Your task to perform on an android device: Open Yahoo.com Image 0: 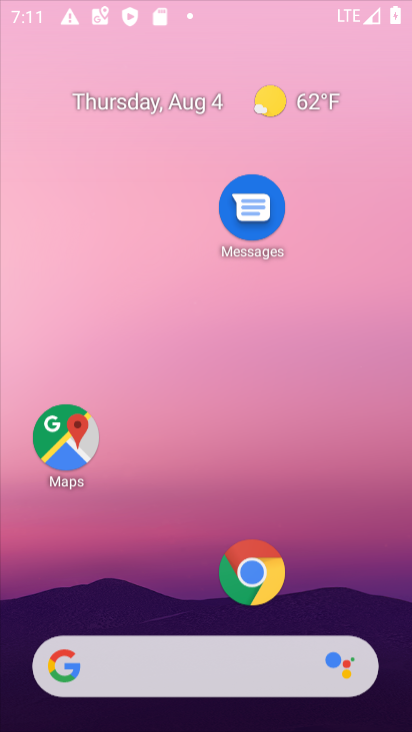
Step 0: press home button
Your task to perform on an android device: Open Yahoo.com Image 1: 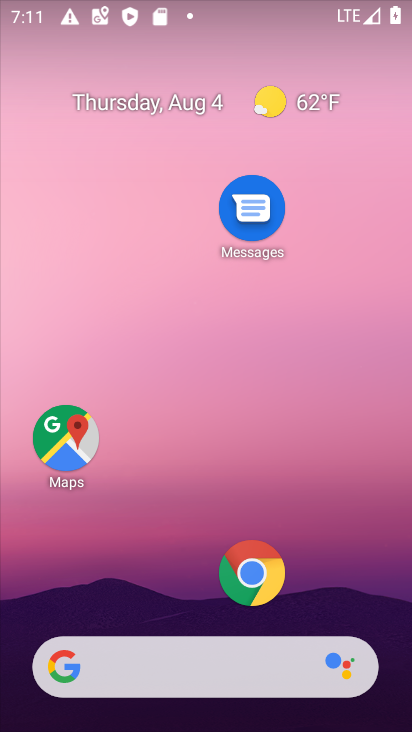
Step 1: click (67, 664)
Your task to perform on an android device: Open Yahoo.com Image 2: 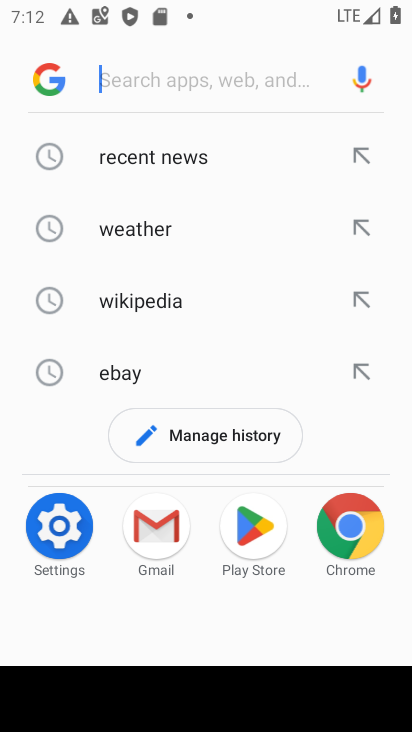
Step 2: type "Yahoo.com"
Your task to perform on an android device: Open Yahoo.com Image 3: 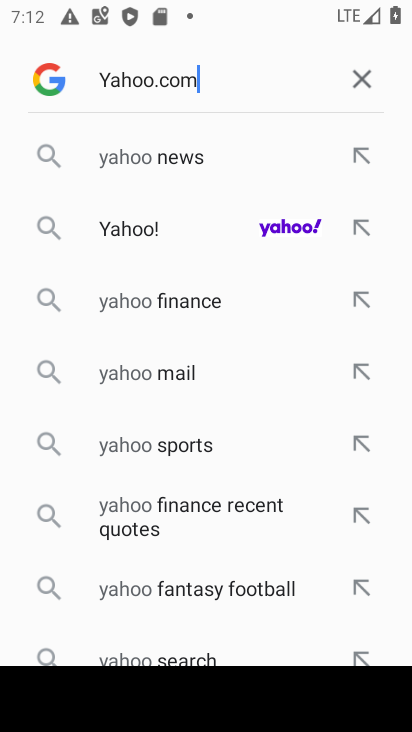
Step 3: press enter
Your task to perform on an android device: Open Yahoo.com Image 4: 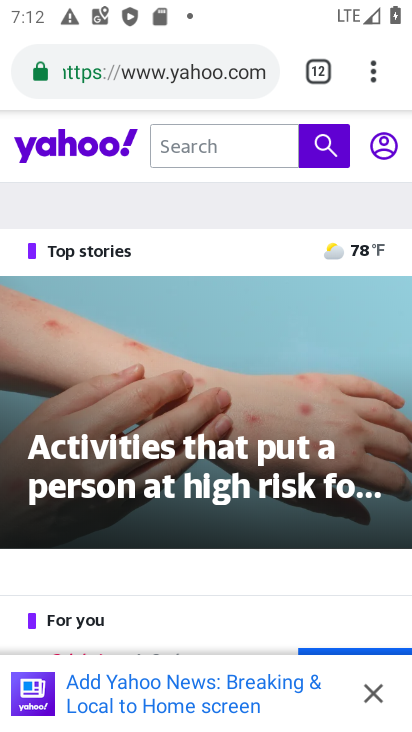
Step 4: click (376, 694)
Your task to perform on an android device: Open Yahoo.com Image 5: 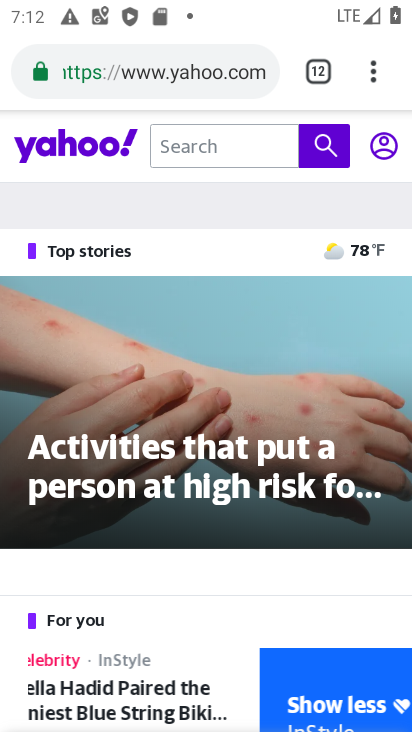
Step 5: task complete